Your task to perform on an android device: find which apps use the phone's location Image 0: 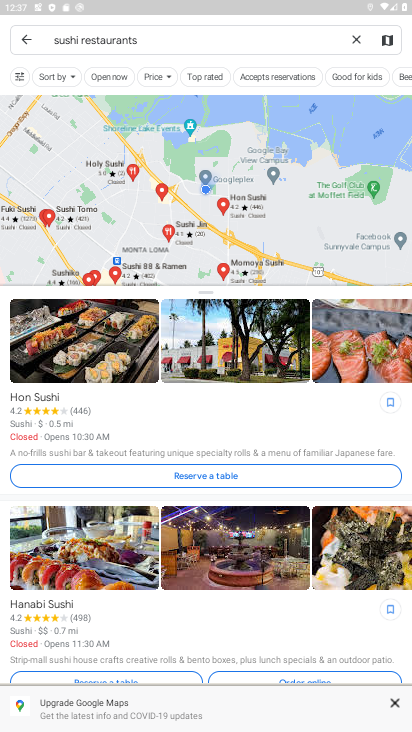
Step 0: press home button
Your task to perform on an android device: find which apps use the phone's location Image 1: 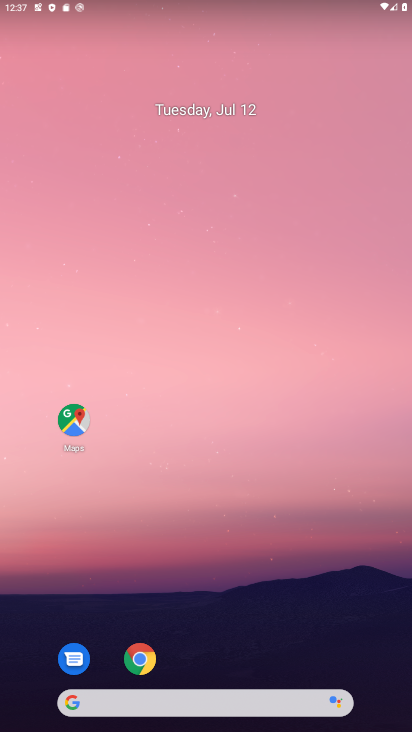
Step 1: drag from (231, 713) to (229, 119)
Your task to perform on an android device: find which apps use the phone's location Image 2: 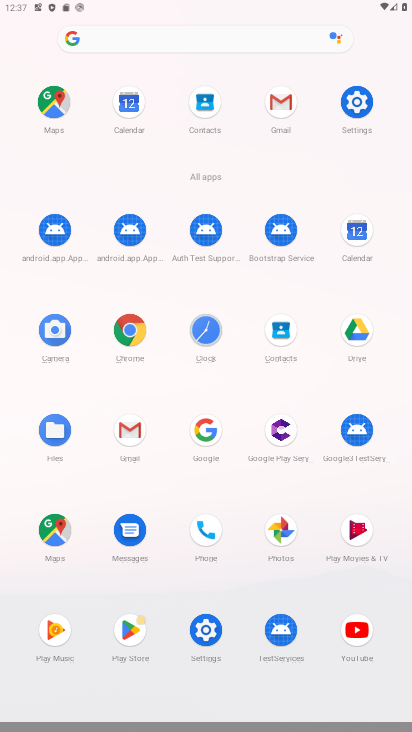
Step 2: click (352, 100)
Your task to perform on an android device: find which apps use the phone's location Image 3: 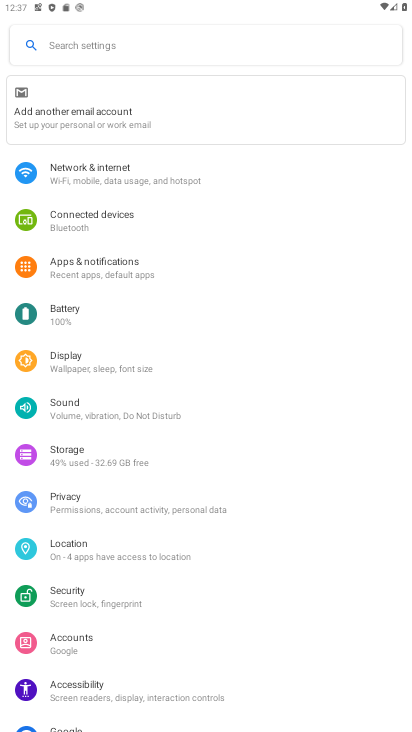
Step 3: click (70, 545)
Your task to perform on an android device: find which apps use the phone's location Image 4: 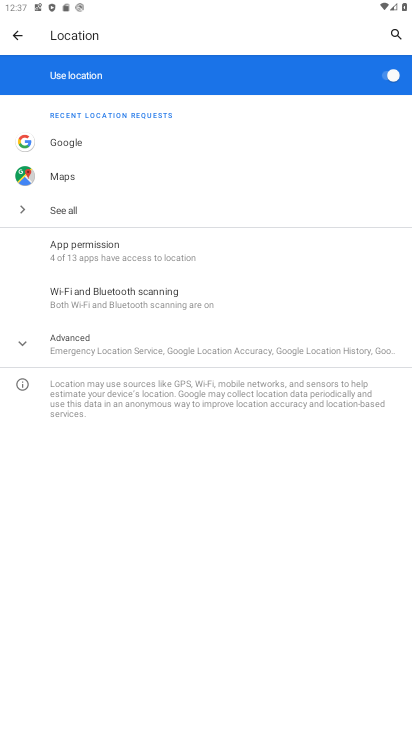
Step 4: click (74, 249)
Your task to perform on an android device: find which apps use the phone's location Image 5: 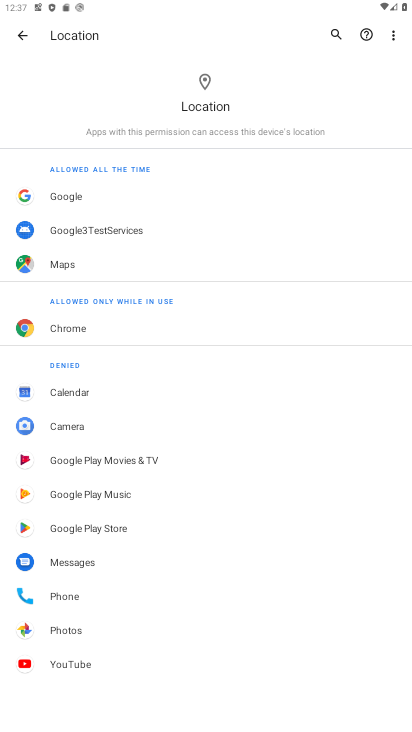
Step 5: task complete